Your task to perform on an android device: turn on data saver in the chrome app Image 0: 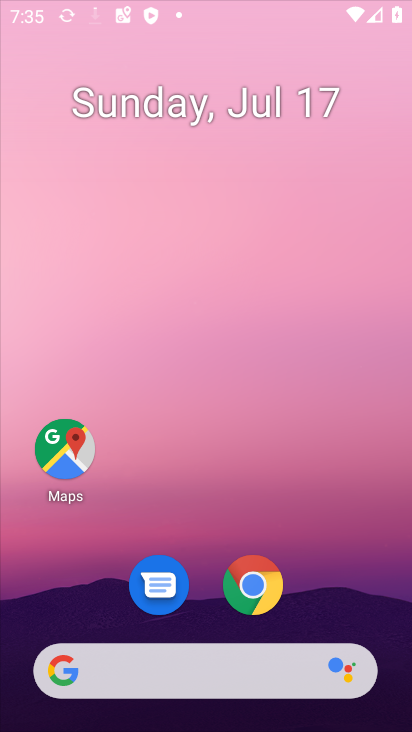
Step 0: drag from (343, 554) to (301, 141)
Your task to perform on an android device: turn on data saver in the chrome app Image 1: 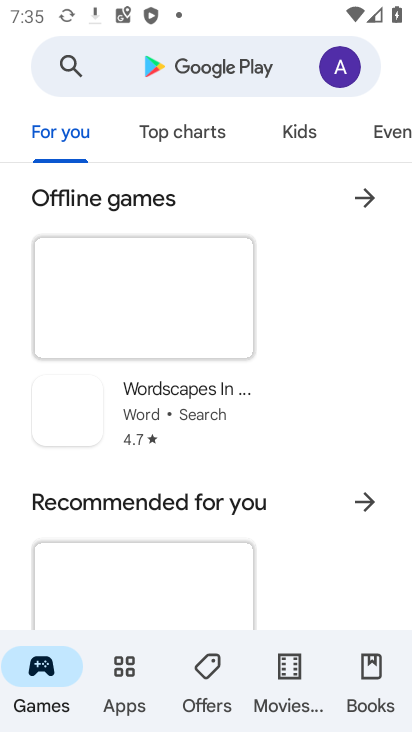
Step 1: press home button
Your task to perform on an android device: turn on data saver in the chrome app Image 2: 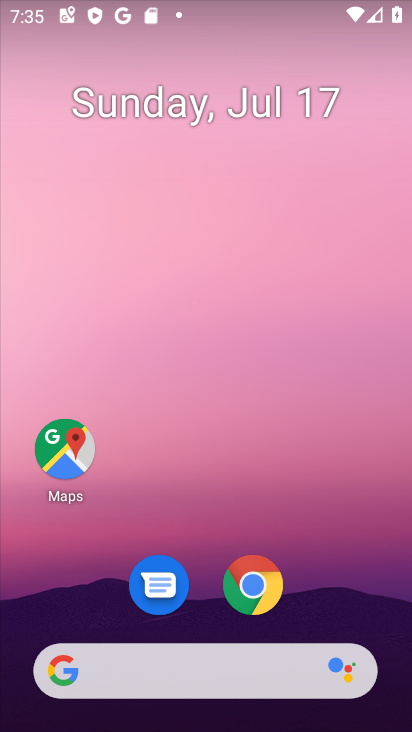
Step 2: click (253, 607)
Your task to perform on an android device: turn on data saver in the chrome app Image 3: 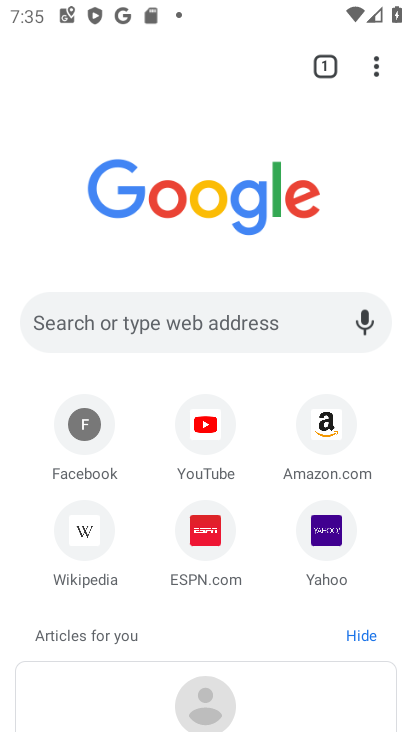
Step 3: click (378, 67)
Your task to perform on an android device: turn on data saver in the chrome app Image 4: 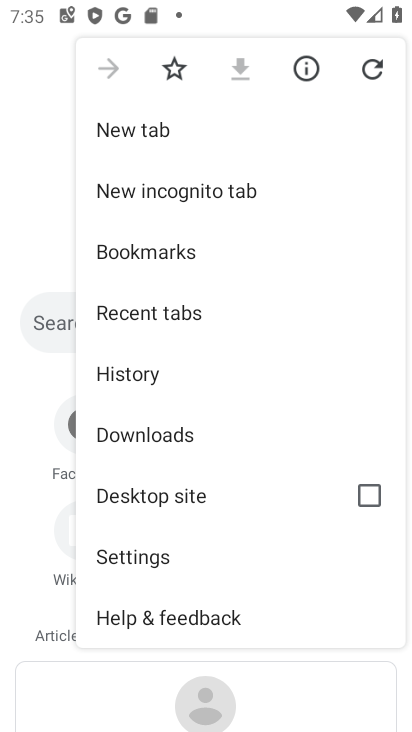
Step 4: click (157, 549)
Your task to perform on an android device: turn on data saver in the chrome app Image 5: 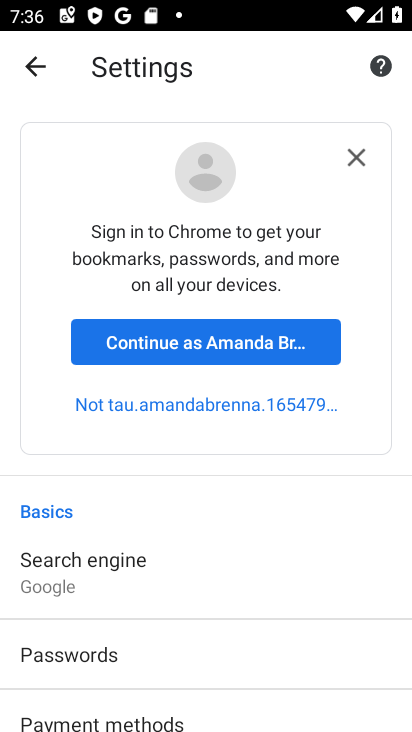
Step 5: click (277, 339)
Your task to perform on an android device: turn on data saver in the chrome app Image 6: 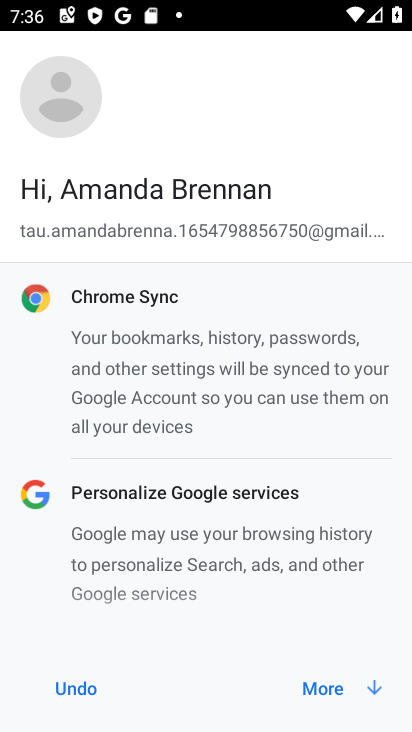
Step 6: click (323, 686)
Your task to perform on an android device: turn on data saver in the chrome app Image 7: 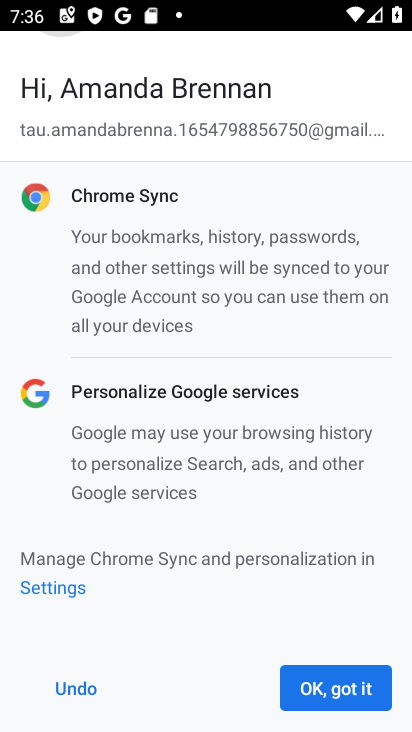
Step 7: click (323, 686)
Your task to perform on an android device: turn on data saver in the chrome app Image 8: 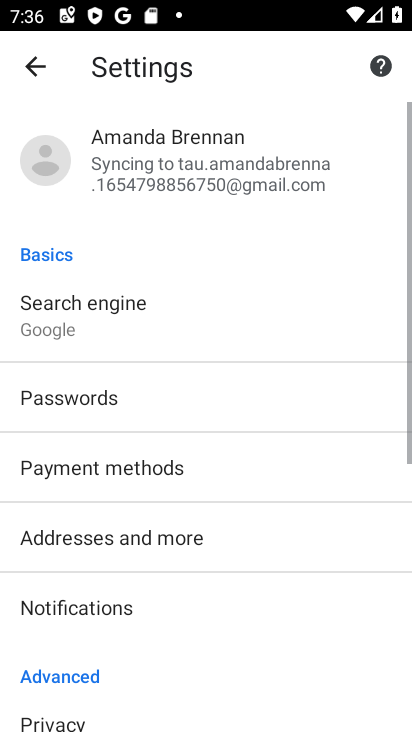
Step 8: drag from (251, 621) to (253, 157)
Your task to perform on an android device: turn on data saver in the chrome app Image 9: 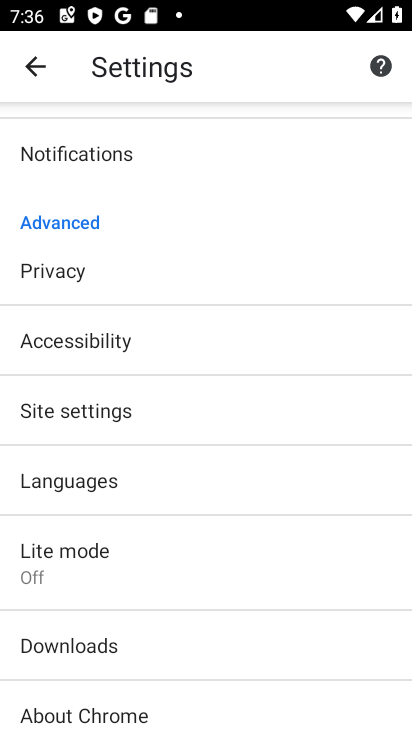
Step 9: click (113, 547)
Your task to perform on an android device: turn on data saver in the chrome app Image 10: 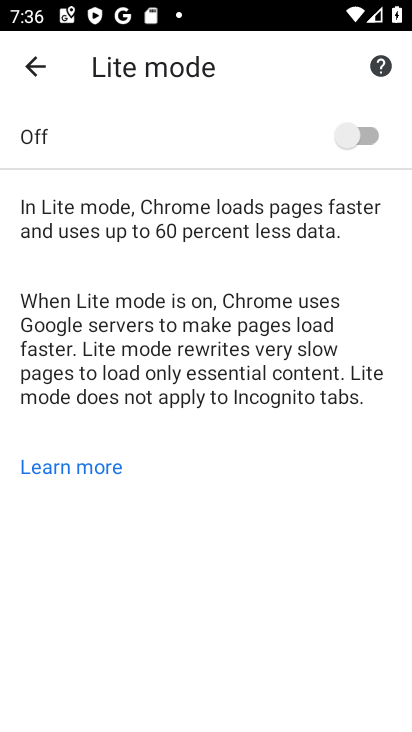
Step 10: click (368, 130)
Your task to perform on an android device: turn on data saver in the chrome app Image 11: 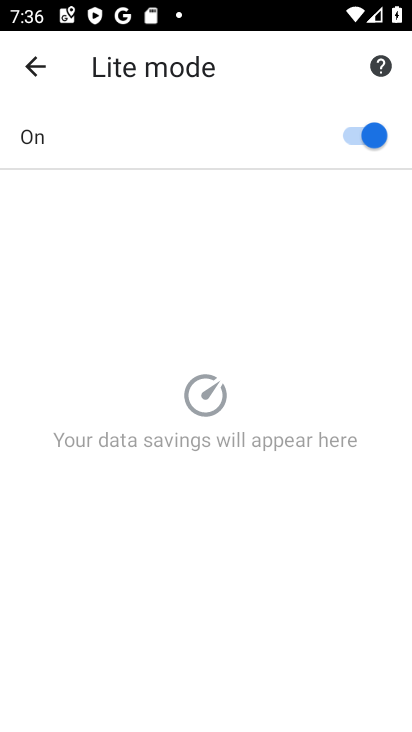
Step 11: task complete